Your task to perform on an android device: find photos in the google photos app Image 0: 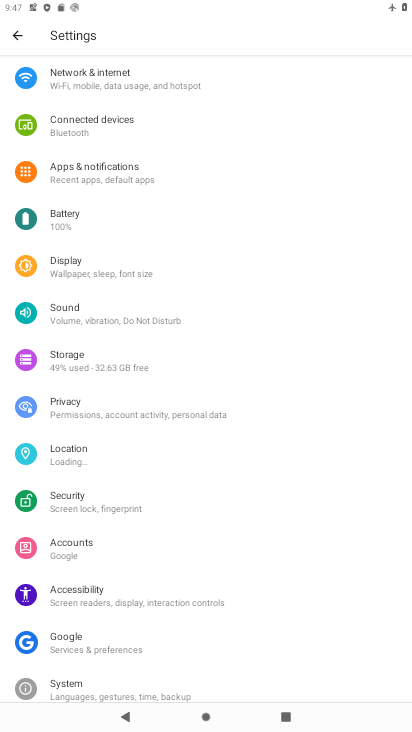
Step 0: press home button
Your task to perform on an android device: find photos in the google photos app Image 1: 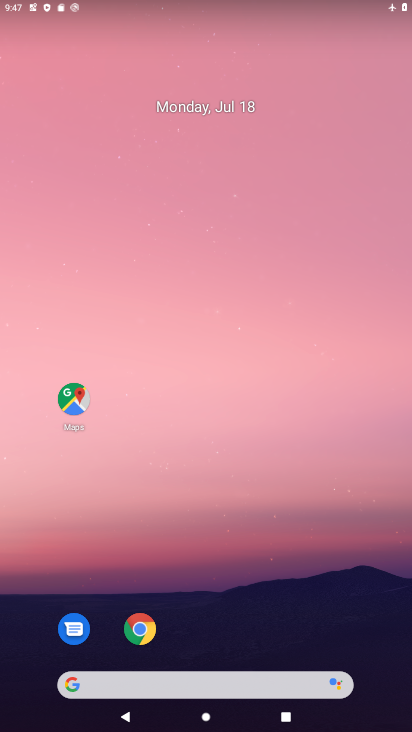
Step 1: drag from (312, 633) to (296, 135)
Your task to perform on an android device: find photos in the google photos app Image 2: 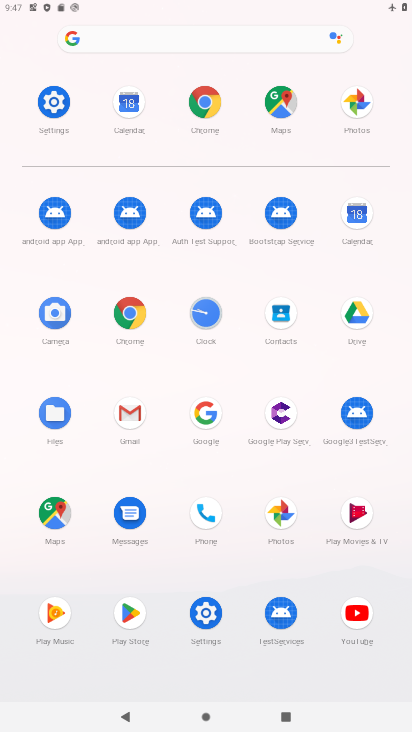
Step 2: click (280, 517)
Your task to perform on an android device: find photos in the google photos app Image 3: 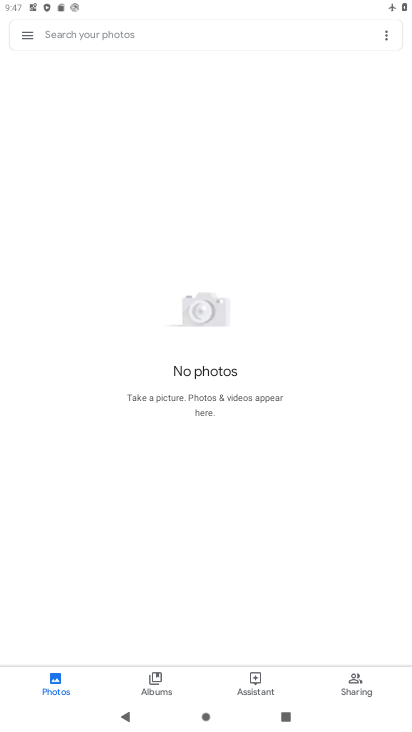
Step 3: task complete